Your task to perform on an android device: Open settings on Google Maps Image 0: 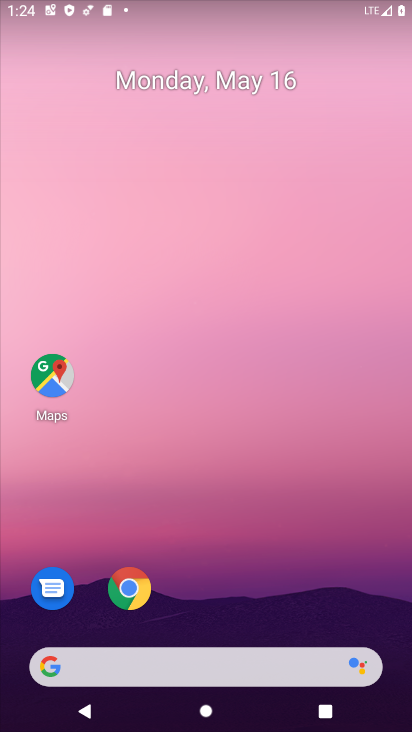
Step 0: click (53, 377)
Your task to perform on an android device: Open settings on Google Maps Image 1: 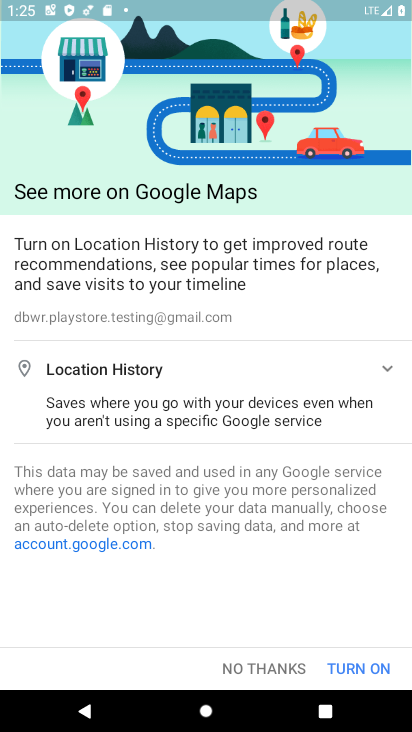
Step 1: click (260, 665)
Your task to perform on an android device: Open settings on Google Maps Image 2: 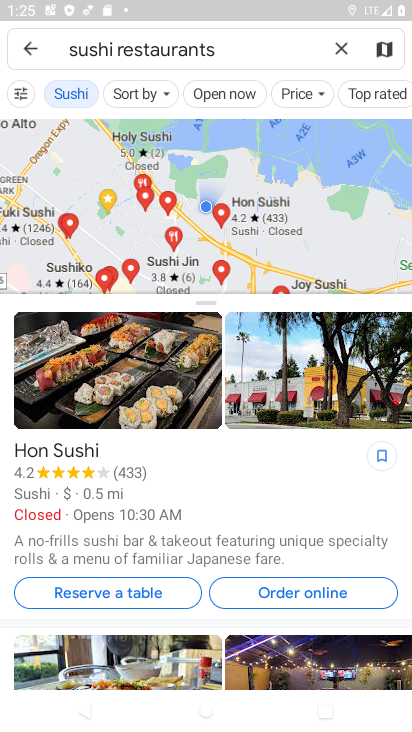
Step 2: click (344, 41)
Your task to perform on an android device: Open settings on Google Maps Image 3: 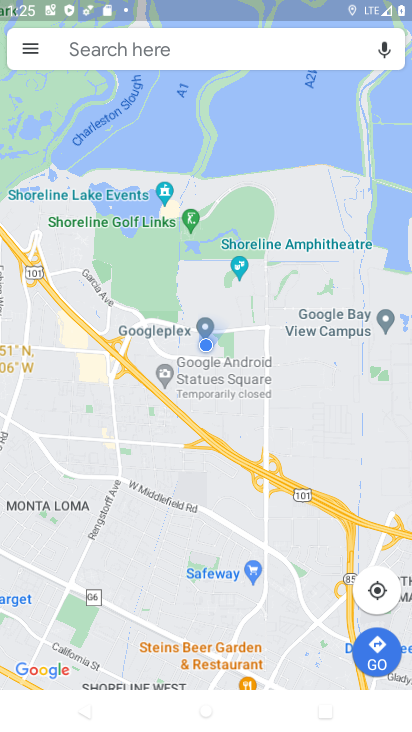
Step 3: click (32, 50)
Your task to perform on an android device: Open settings on Google Maps Image 4: 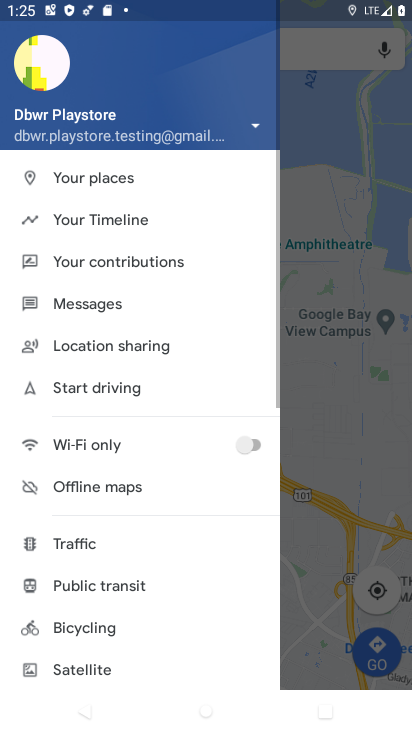
Step 4: drag from (99, 450) to (132, 362)
Your task to perform on an android device: Open settings on Google Maps Image 5: 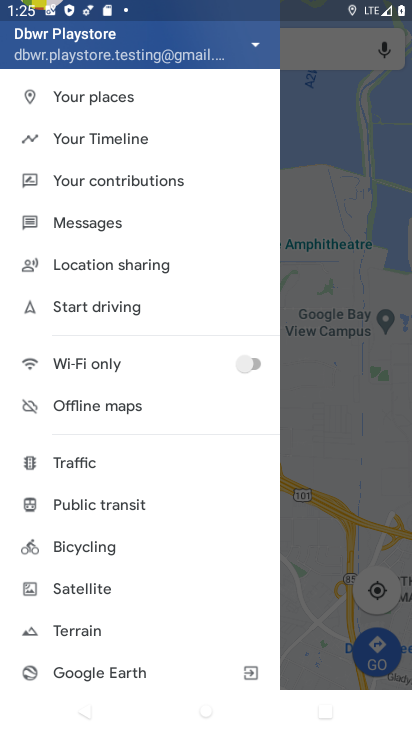
Step 5: drag from (88, 496) to (140, 391)
Your task to perform on an android device: Open settings on Google Maps Image 6: 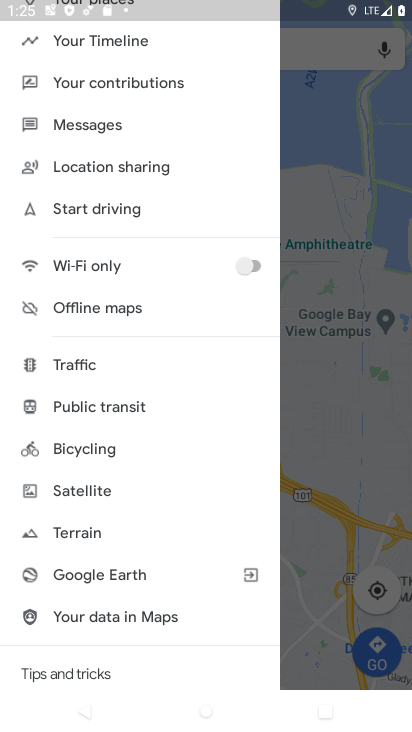
Step 6: drag from (87, 545) to (121, 458)
Your task to perform on an android device: Open settings on Google Maps Image 7: 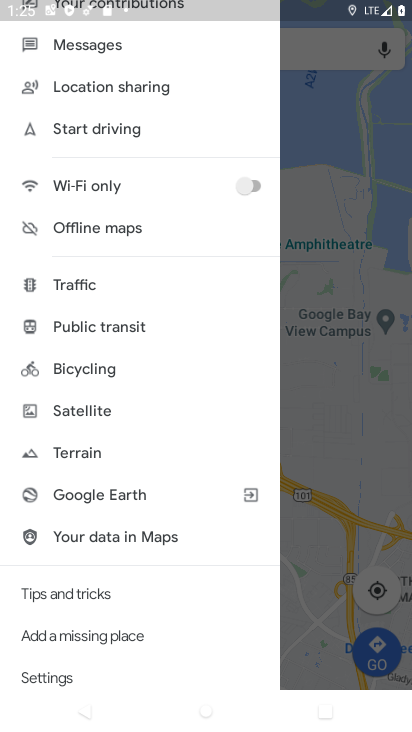
Step 7: drag from (62, 549) to (96, 426)
Your task to perform on an android device: Open settings on Google Maps Image 8: 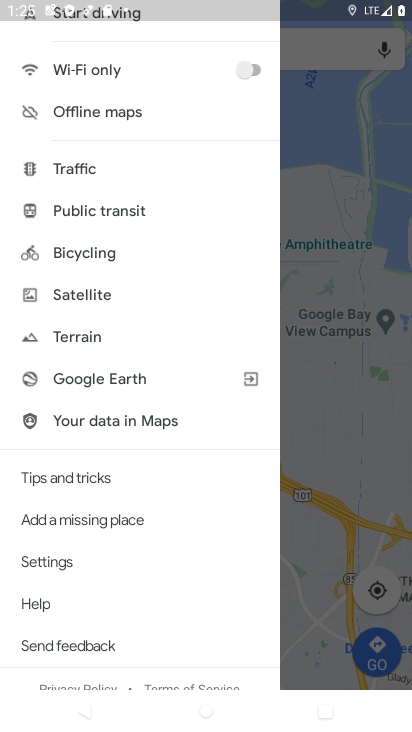
Step 8: click (66, 564)
Your task to perform on an android device: Open settings on Google Maps Image 9: 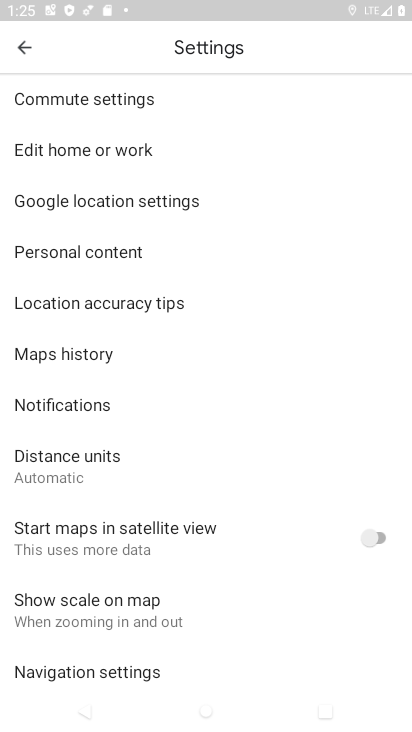
Step 9: task complete